Your task to perform on an android device: turn pop-ups off in chrome Image 0: 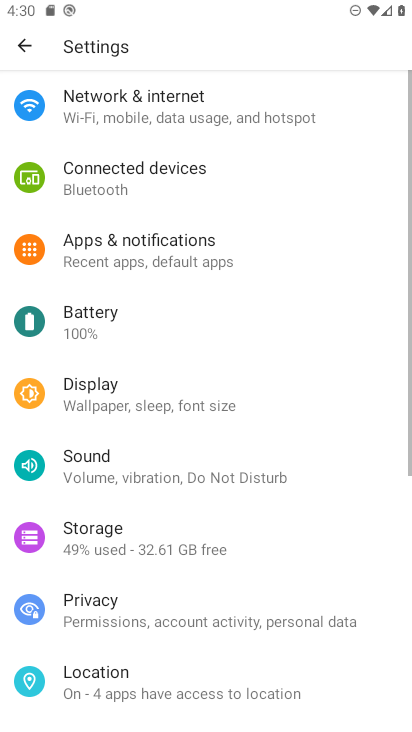
Step 0: press home button
Your task to perform on an android device: turn pop-ups off in chrome Image 1: 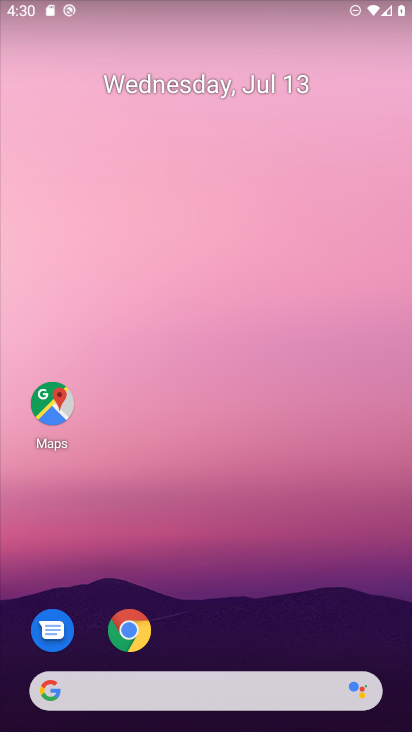
Step 1: click (119, 609)
Your task to perform on an android device: turn pop-ups off in chrome Image 2: 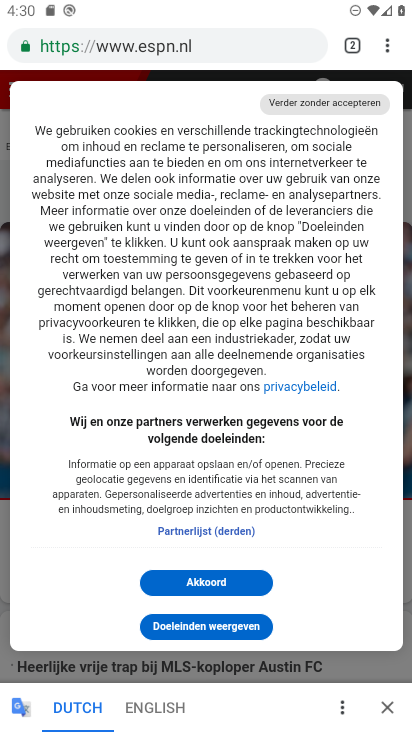
Step 2: click (391, 45)
Your task to perform on an android device: turn pop-ups off in chrome Image 3: 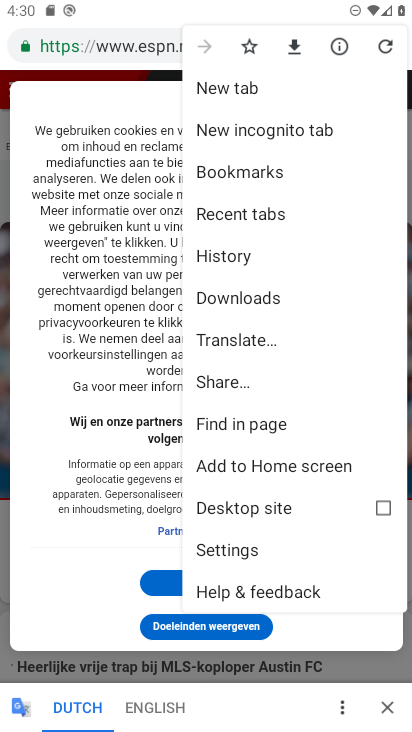
Step 3: click (239, 547)
Your task to perform on an android device: turn pop-ups off in chrome Image 4: 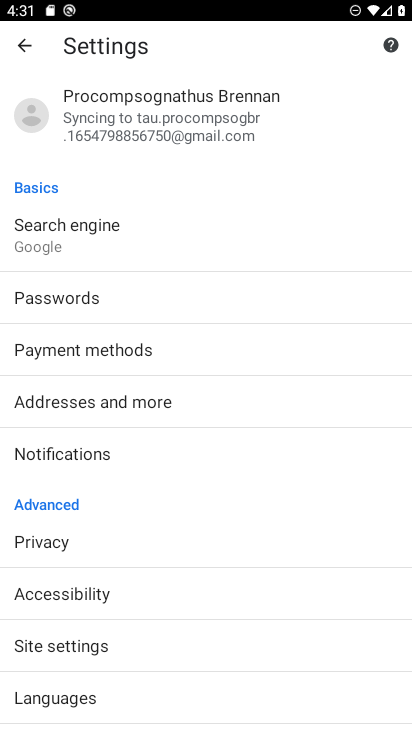
Step 4: drag from (154, 421) to (154, 244)
Your task to perform on an android device: turn pop-ups off in chrome Image 5: 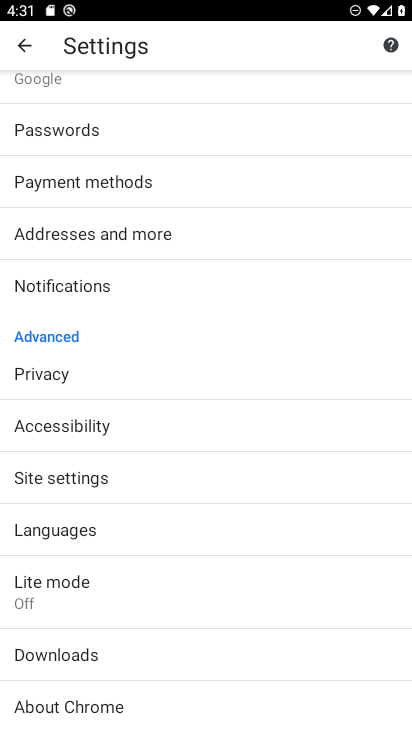
Step 5: click (97, 483)
Your task to perform on an android device: turn pop-ups off in chrome Image 6: 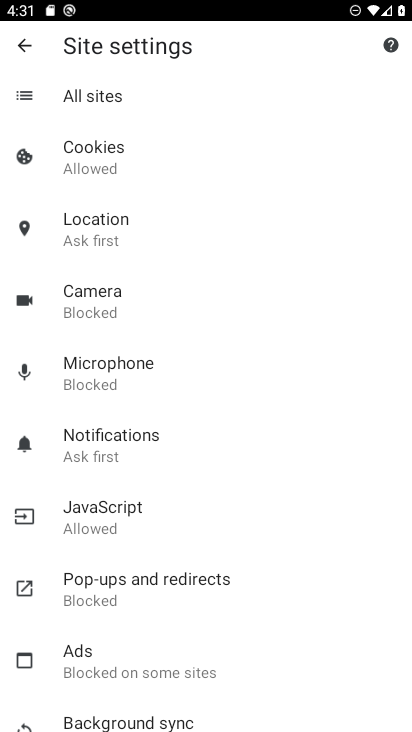
Step 6: click (137, 601)
Your task to perform on an android device: turn pop-ups off in chrome Image 7: 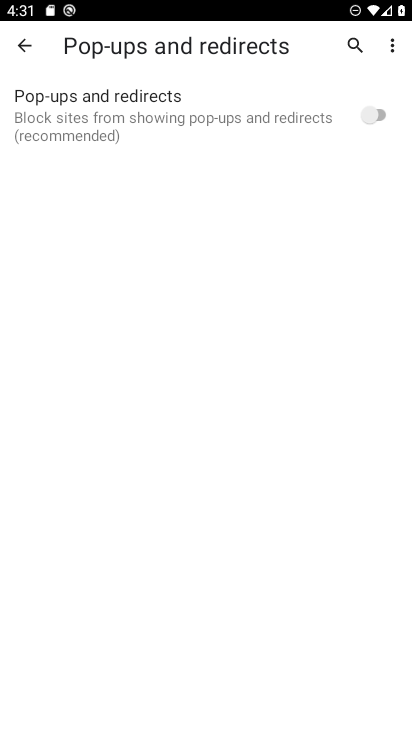
Step 7: task complete